Your task to perform on an android device: toggle notification dots Image 0: 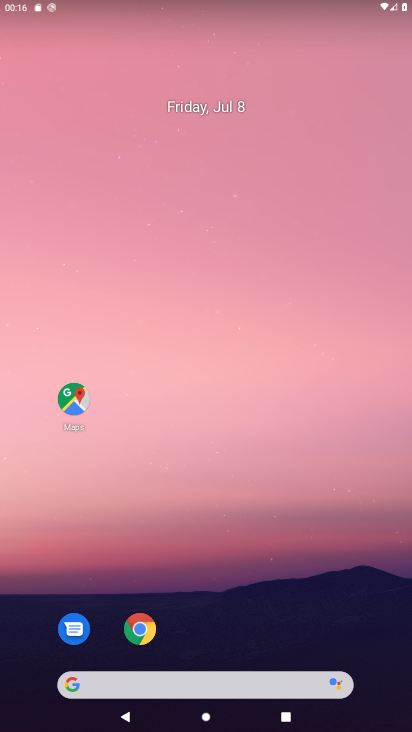
Step 0: drag from (273, 580) to (273, 407)
Your task to perform on an android device: toggle notification dots Image 1: 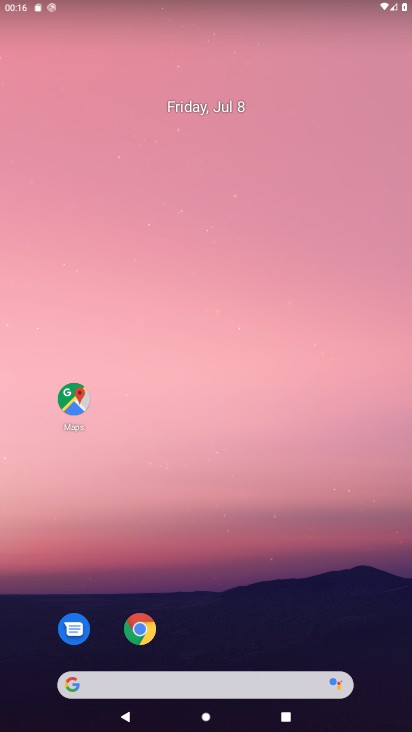
Step 1: drag from (278, 612) to (226, 25)
Your task to perform on an android device: toggle notification dots Image 2: 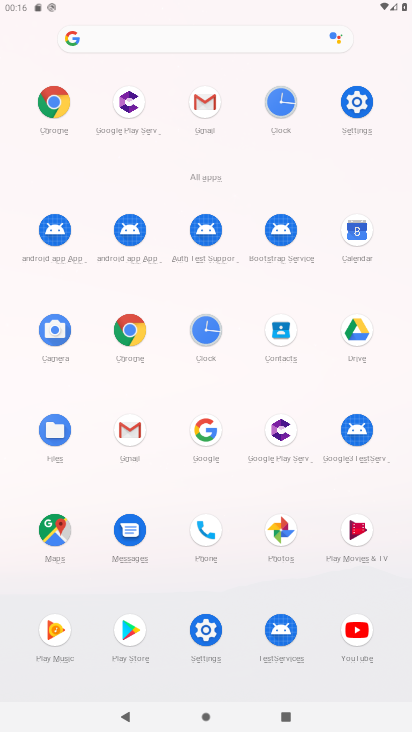
Step 2: click (346, 112)
Your task to perform on an android device: toggle notification dots Image 3: 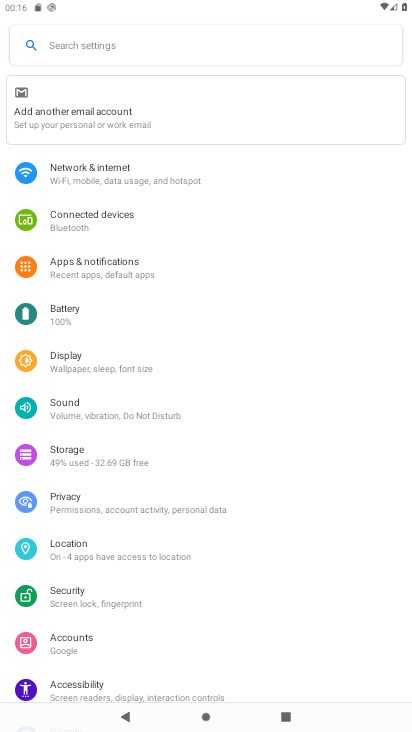
Step 3: click (183, 271)
Your task to perform on an android device: toggle notification dots Image 4: 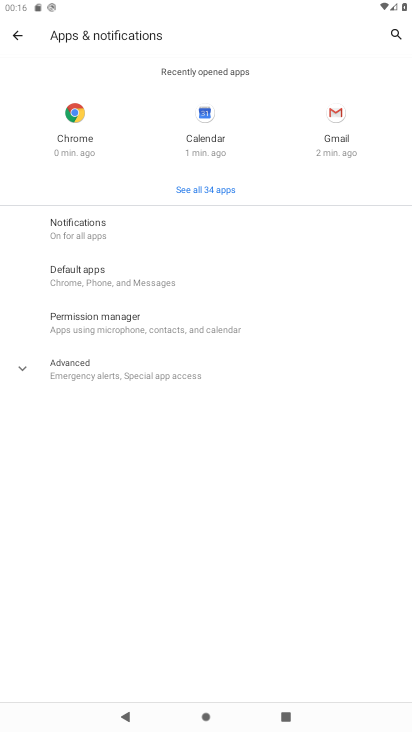
Step 4: click (129, 231)
Your task to perform on an android device: toggle notification dots Image 5: 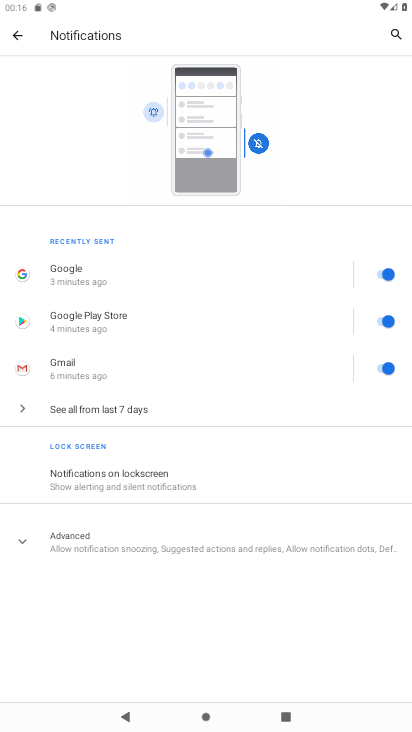
Step 5: click (96, 539)
Your task to perform on an android device: toggle notification dots Image 6: 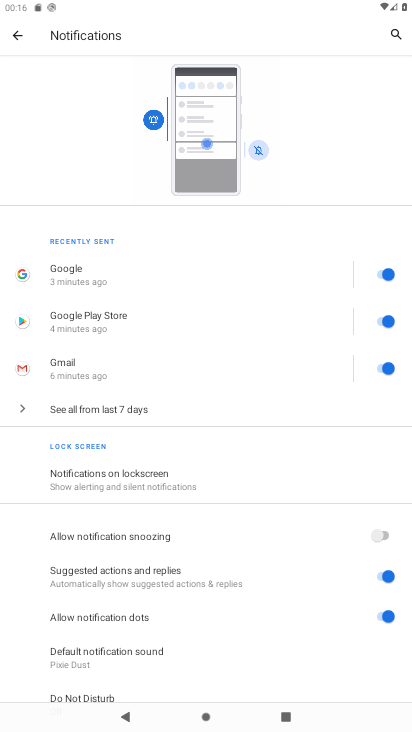
Step 6: click (385, 620)
Your task to perform on an android device: toggle notification dots Image 7: 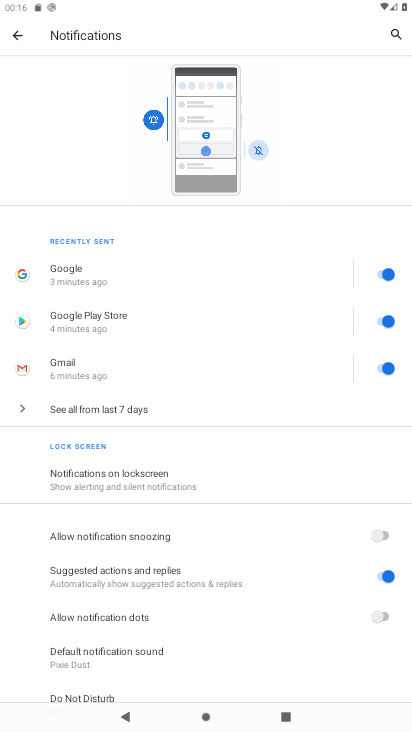
Step 7: task complete